Your task to perform on an android device: open sync settings in chrome Image 0: 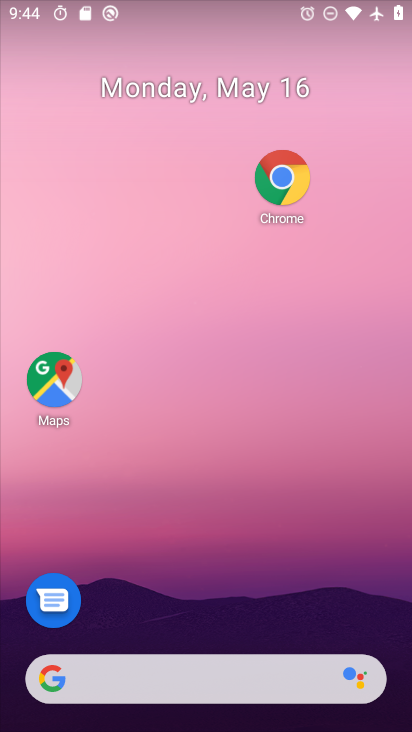
Step 0: click (276, 189)
Your task to perform on an android device: open sync settings in chrome Image 1: 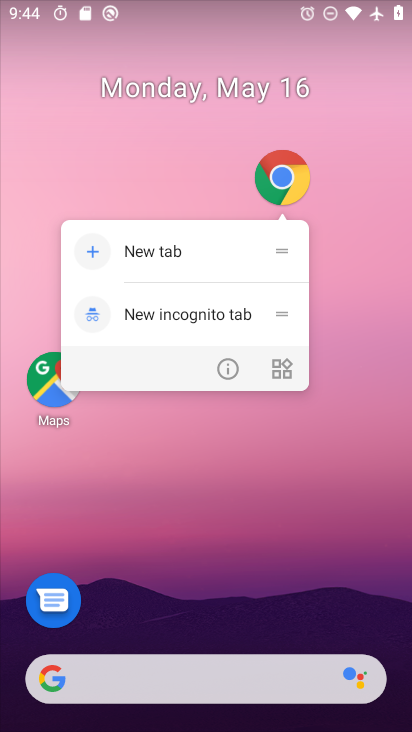
Step 1: click (277, 182)
Your task to perform on an android device: open sync settings in chrome Image 2: 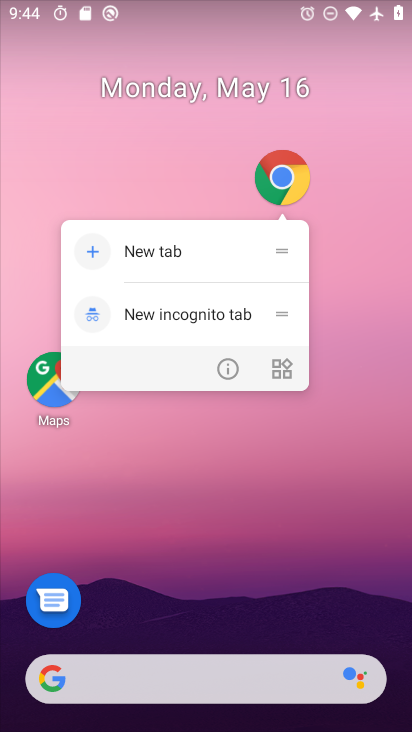
Step 2: click (286, 182)
Your task to perform on an android device: open sync settings in chrome Image 3: 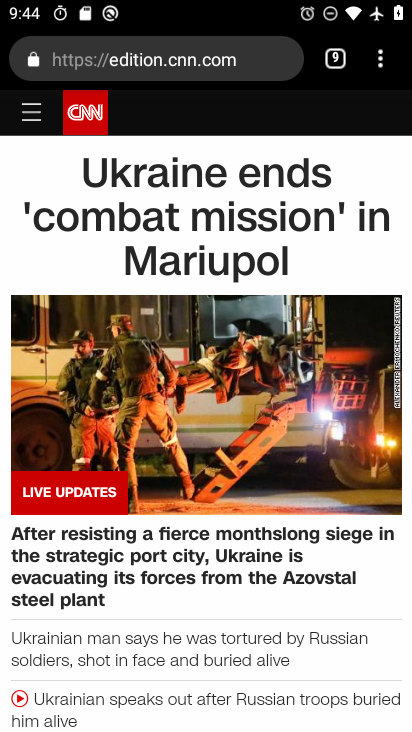
Step 3: drag from (377, 65) to (206, 640)
Your task to perform on an android device: open sync settings in chrome Image 4: 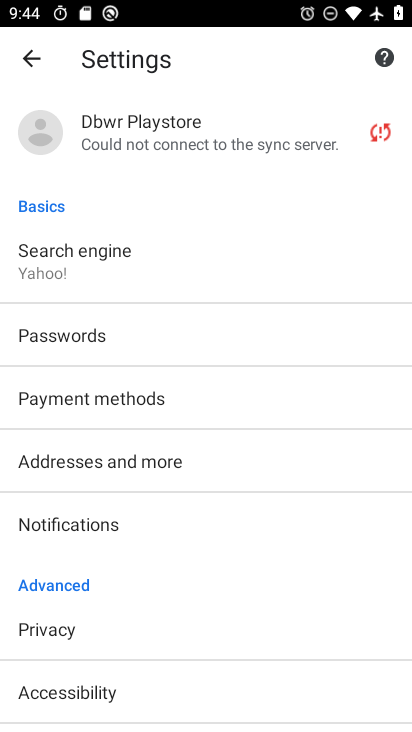
Step 4: drag from (224, 622) to (293, 190)
Your task to perform on an android device: open sync settings in chrome Image 5: 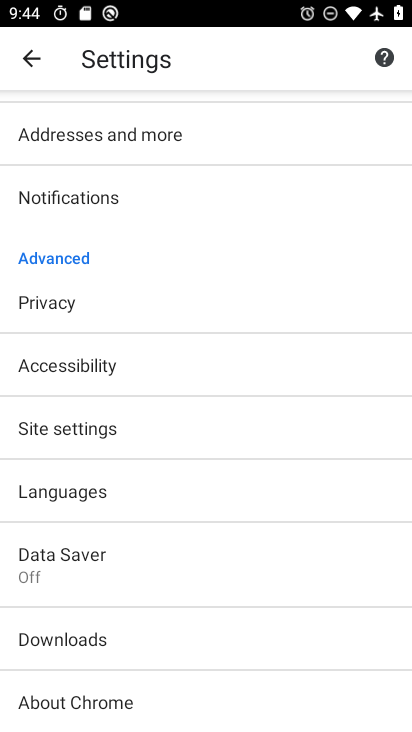
Step 5: drag from (229, 215) to (208, 588)
Your task to perform on an android device: open sync settings in chrome Image 6: 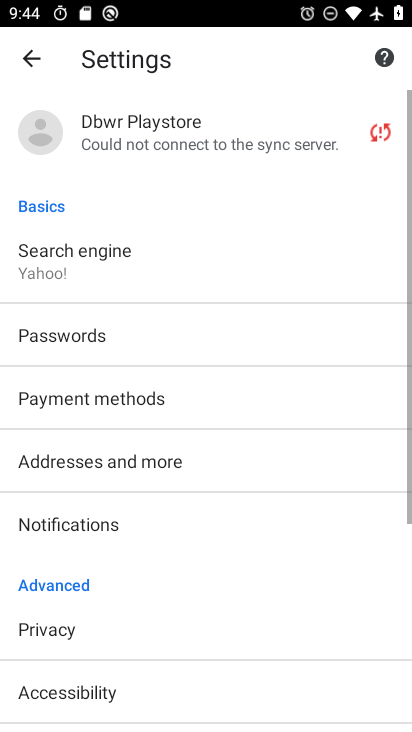
Step 6: click (266, 151)
Your task to perform on an android device: open sync settings in chrome Image 7: 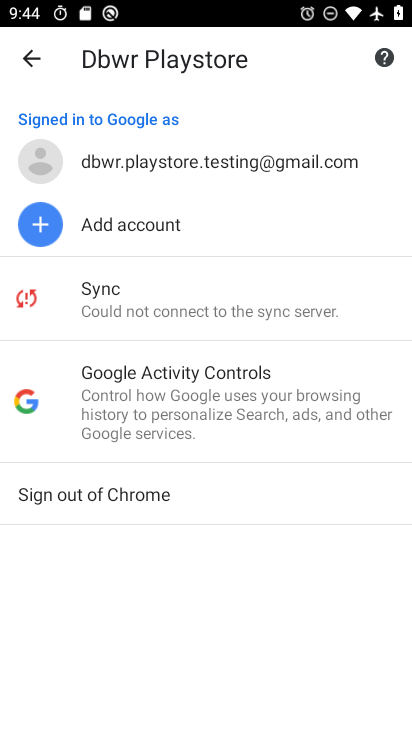
Step 7: click (146, 291)
Your task to perform on an android device: open sync settings in chrome Image 8: 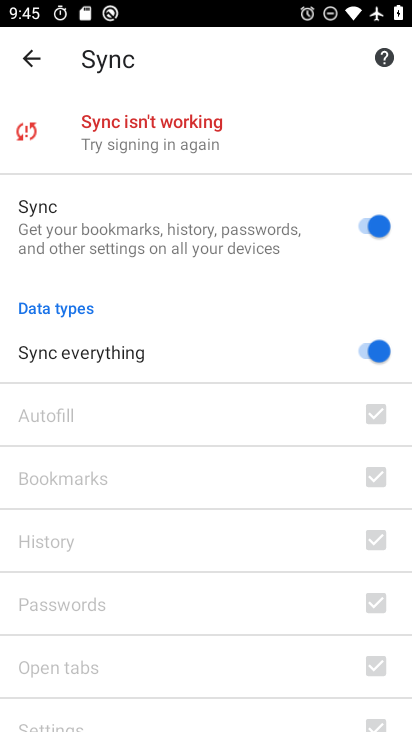
Step 8: task complete